Your task to perform on an android device: Open battery settings Image 0: 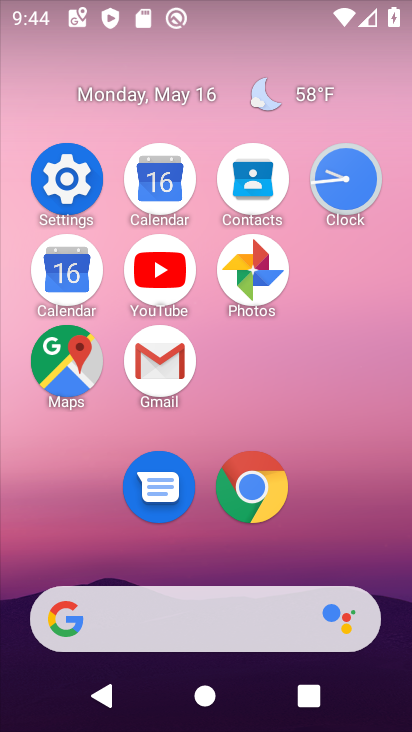
Step 0: click (91, 178)
Your task to perform on an android device: Open battery settings Image 1: 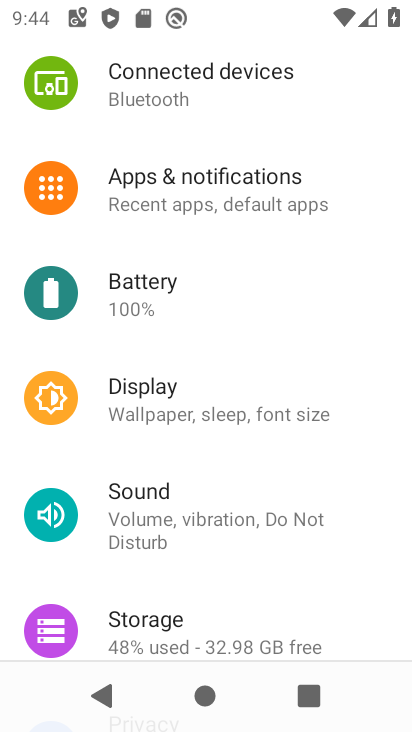
Step 1: click (210, 306)
Your task to perform on an android device: Open battery settings Image 2: 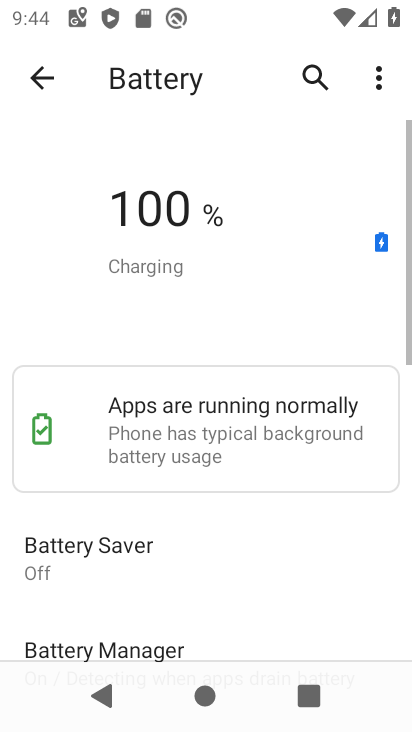
Step 2: task complete